Your task to perform on an android device: Go to location settings Image 0: 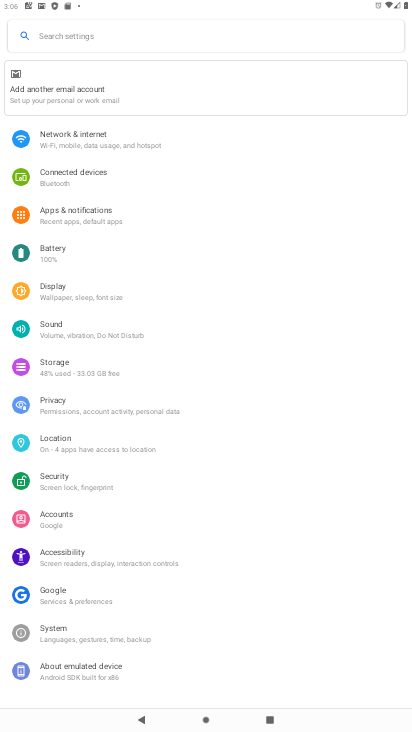
Step 0: press home button
Your task to perform on an android device: Go to location settings Image 1: 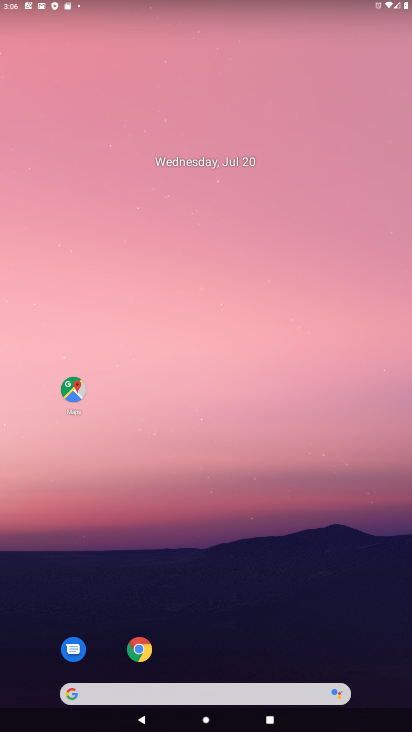
Step 1: drag from (208, 698) to (400, 101)
Your task to perform on an android device: Go to location settings Image 2: 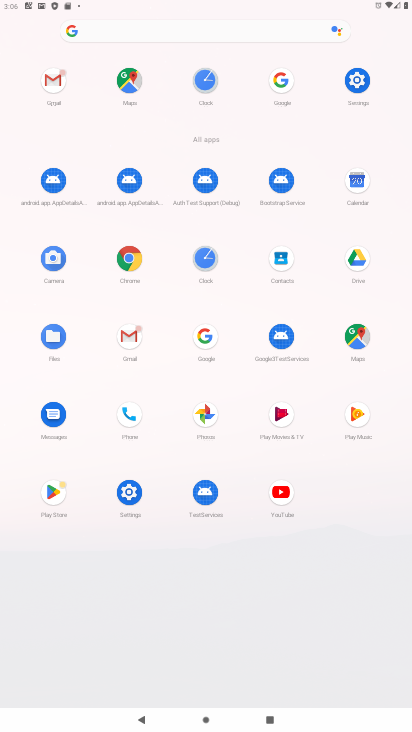
Step 2: click (357, 78)
Your task to perform on an android device: Go to location settings Image 3: 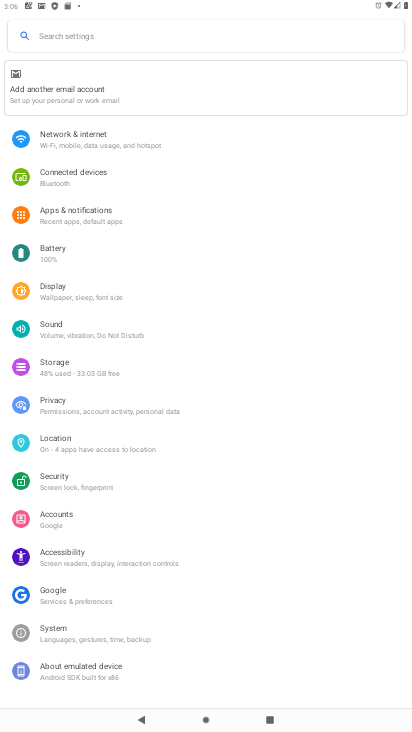
Step 3: click (67, 446)
Your task to perform on an android device: Go to location settings Image 4: 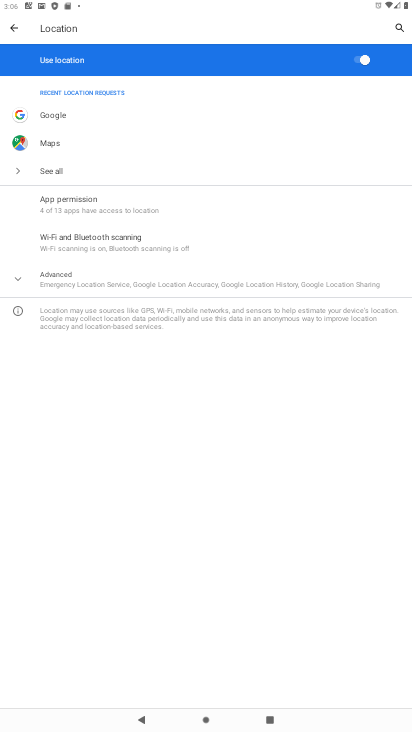
Step 4: task complete